Your task to perform on an android device: Open Amazon Image 0: 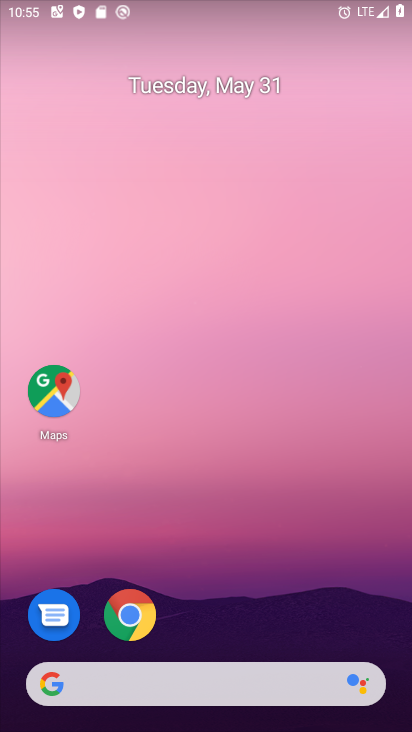
Step 0: drag from (303, 562) to (43, 188)
Your task to perform on an android device: Open Amazon Image 1: 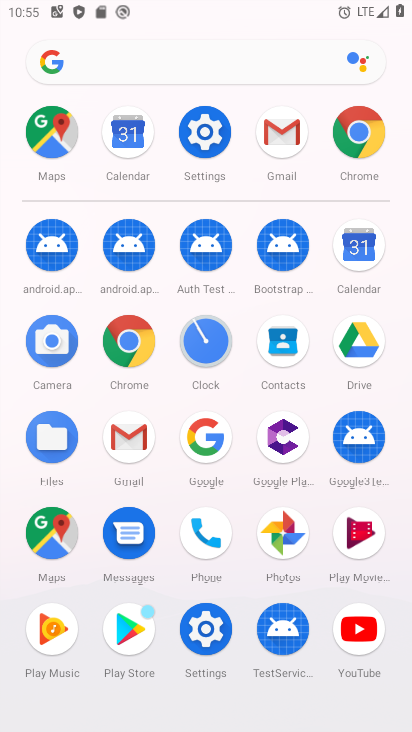
Step 1: click (349, 138)
Your task to perform on an android device: Open Amazon Image 2: 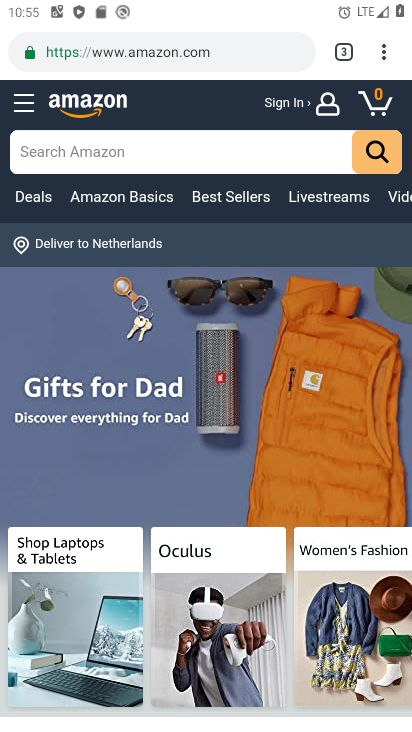
Step 2: task complete